Your task to perform on an android device: turn notification dots on Image 0: 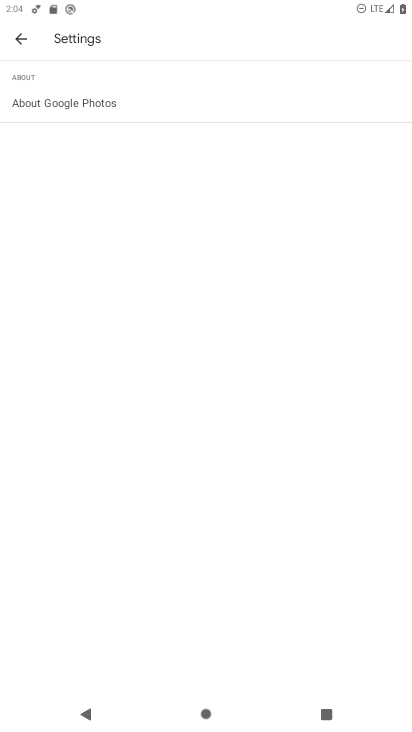
Step 0: press home button
Your task to perform on an android device: turn notification dots on Image 1: 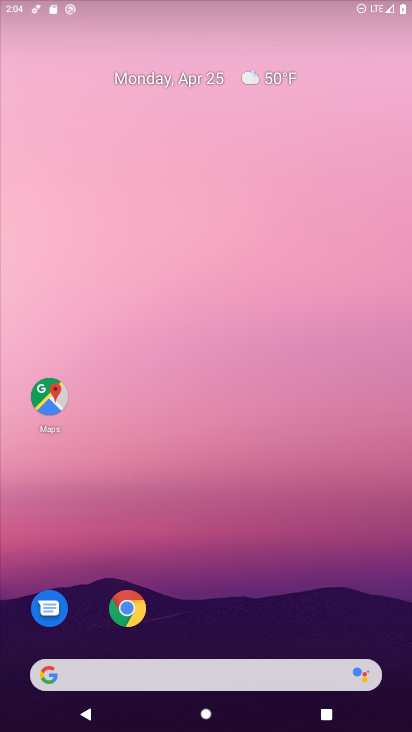
Step 1: drag from (371, 620) to (215, 44)
Your task to perform on an android device: turn notification dots on Image 2: 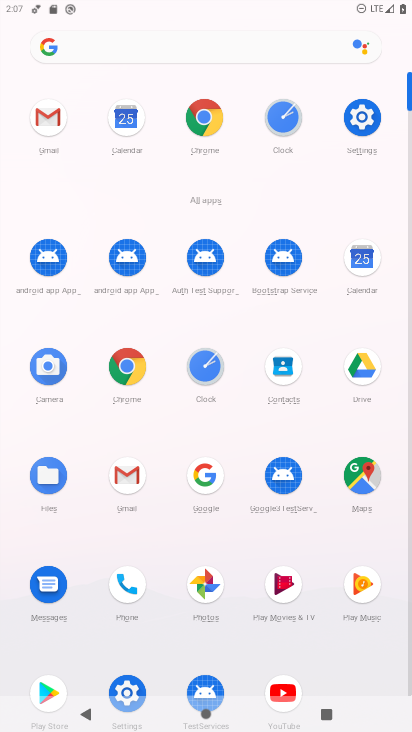
Step 2: click (128, 676)
Your task to perform on an android device: turn notification dots on Image 3: 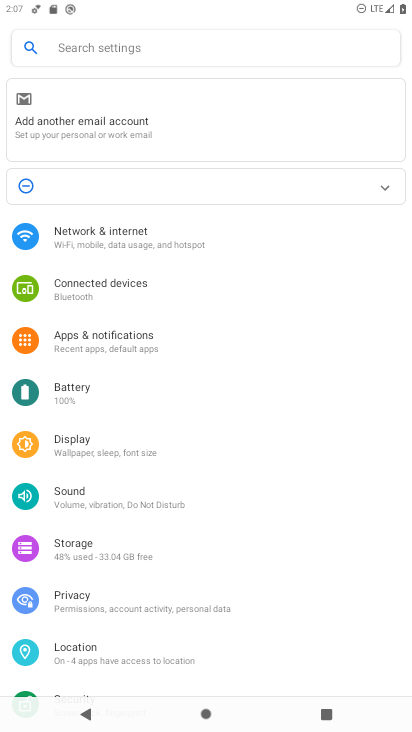
Step 3: click (143, 330)
Your task to perform on an android device: turn notification dots on Image 4: 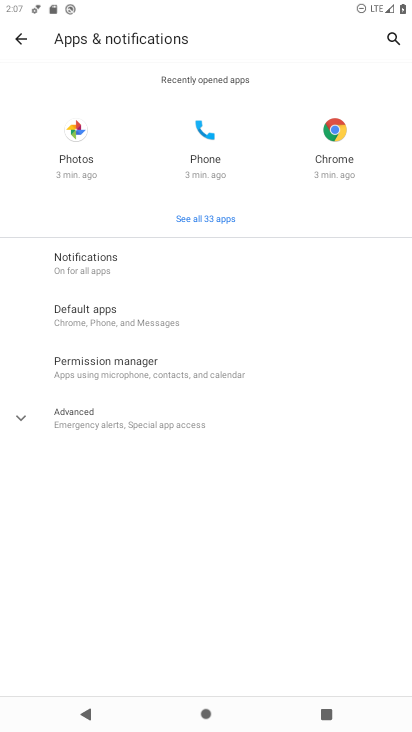
Step 4: click (142, 261)
Your task to perform on an android device: turn notification dots on Image 5: 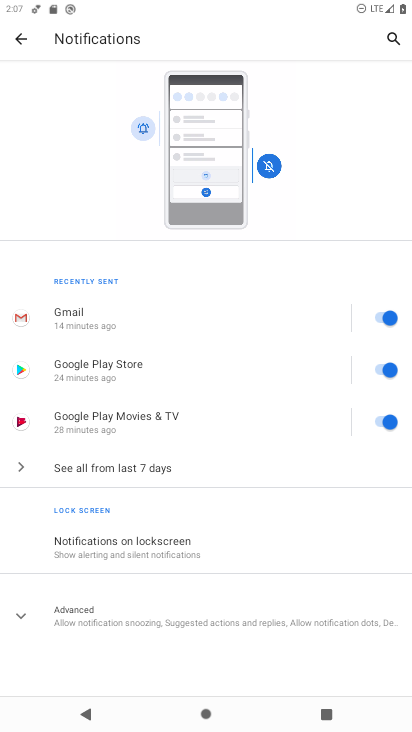
Step 5: click (68, 609)
Your task to perform on an android device: turn notification dots on Image 6: 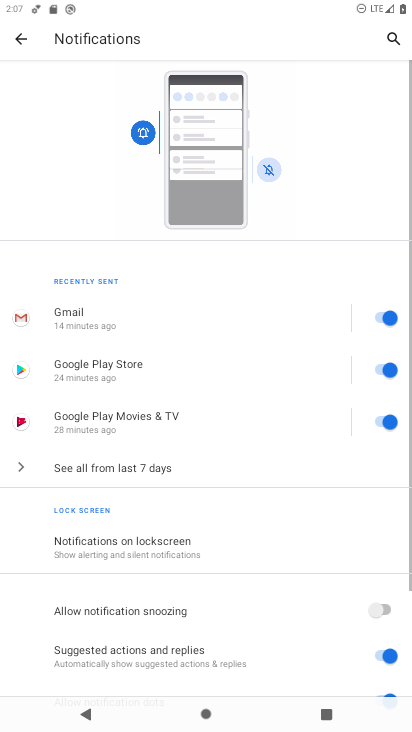
Step 6: task complete